Your task to perform on an android device: open app "Adobe Acrobat Reader: Edit PDF" Image 0: 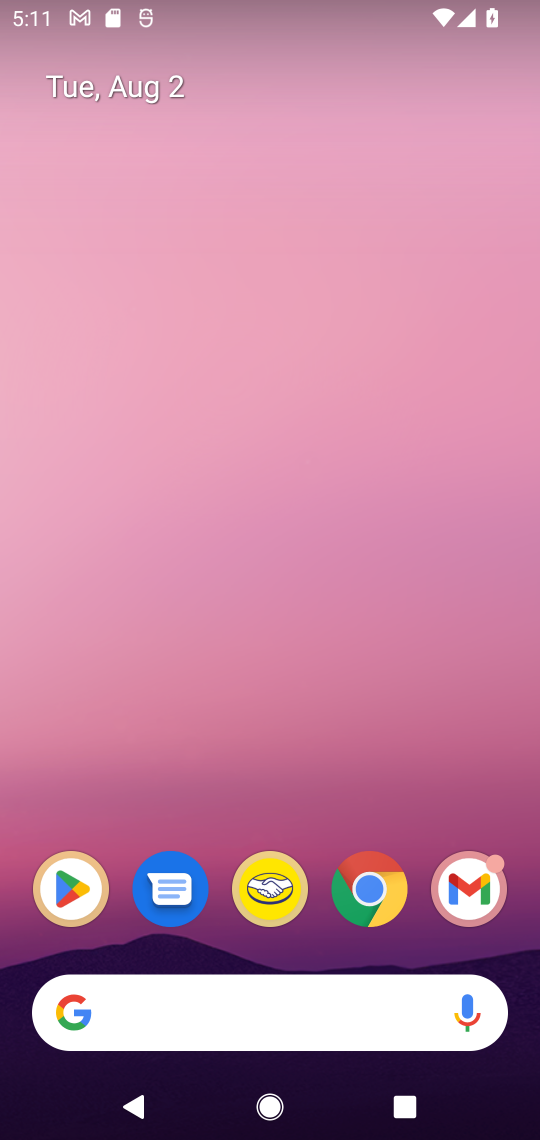
Step 0: drag from (380, 781) to (347, 132)
Your task to perform on an android device: open app "Adobe Acrobat Reader: Edit PDF" Image 1: 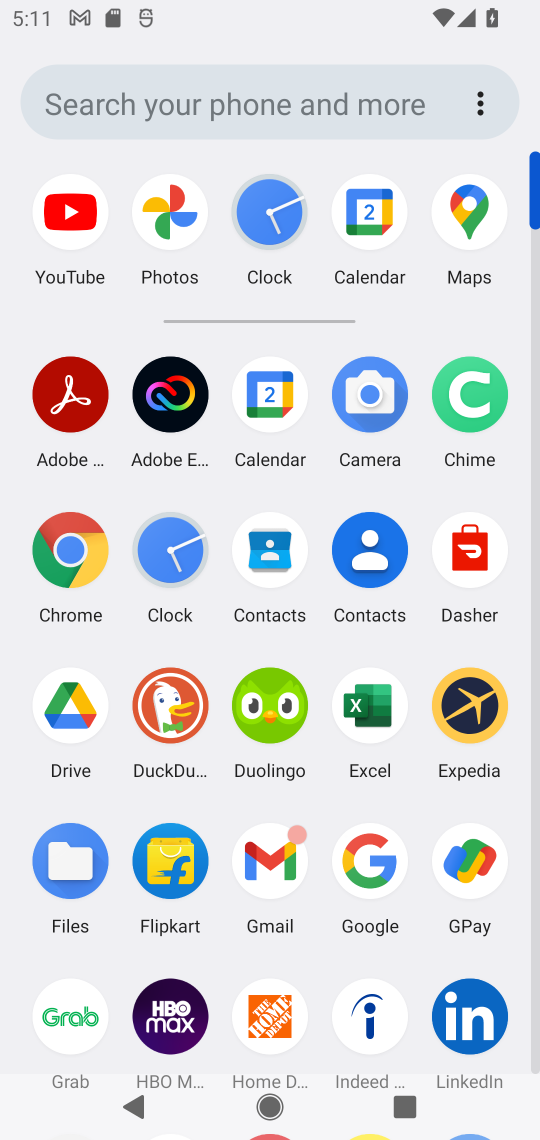
Step 1: drag from (499, 951) to (501, 604)
Your task to perform on an android device: open app "Adobe Acrobat Reader: Edit PDF" Image 2: 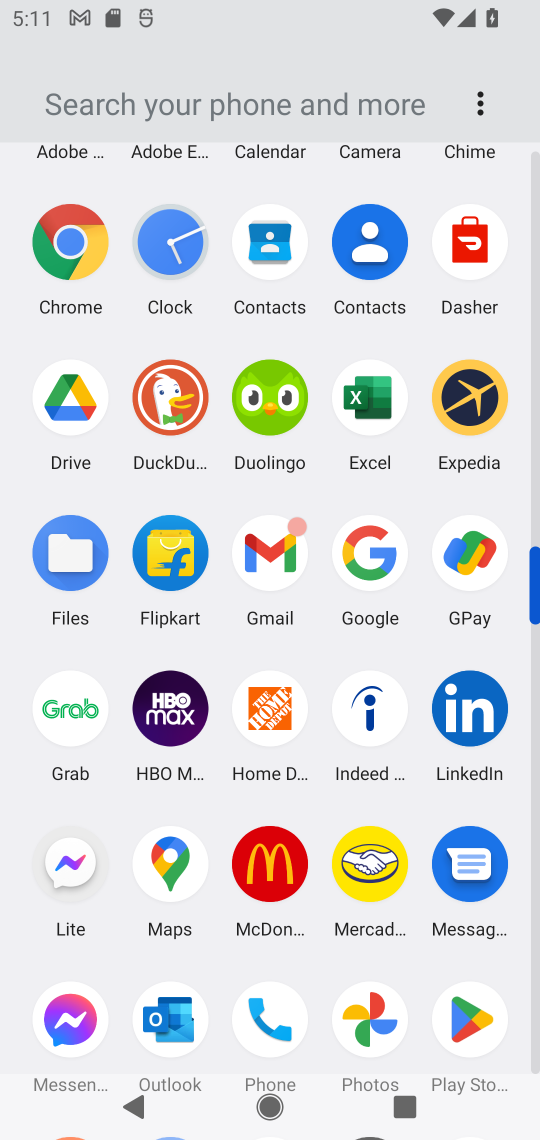
Step 2: drag from (497, 968) to (483, 671)
Your task to perform on an android device: open app "Adobe Acrobat Reader: Edit PDF" Image 3: 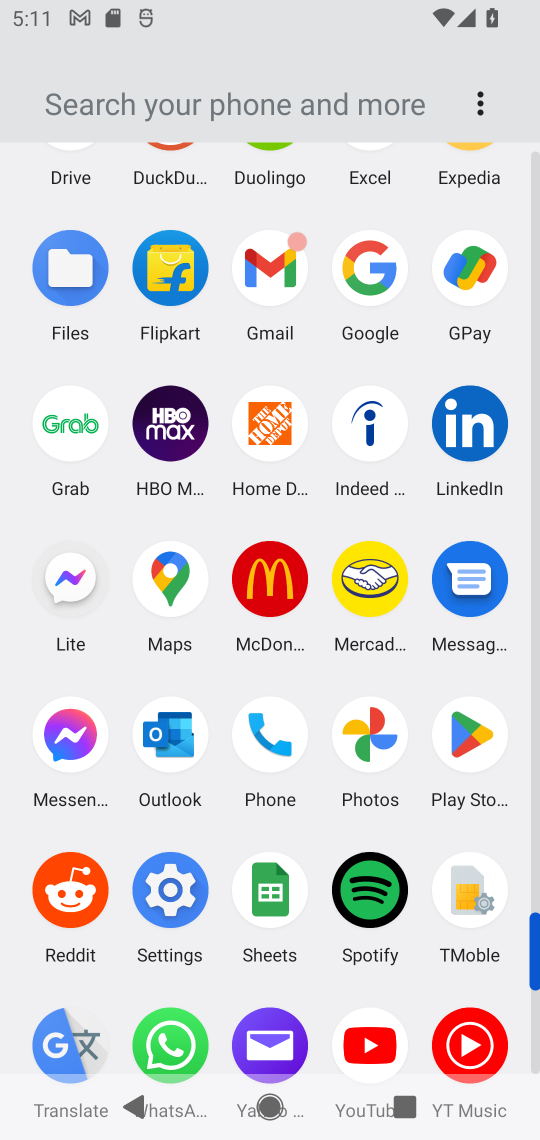
Step 3: click (476, 747)
Your task to perform on an android device: open app "Adobe Acrobat Reader: Edit PDF" Image 4: 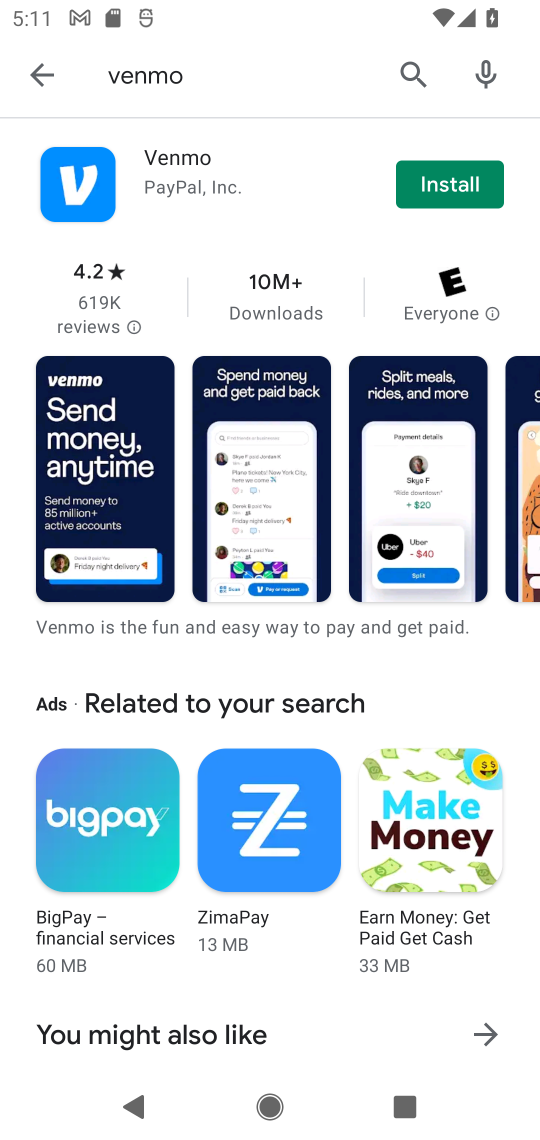
Step 4: click (409, 65)
Your task to perform on an android device: open app "Adobe Acrobat Reader: Edit PDF" Image 5: 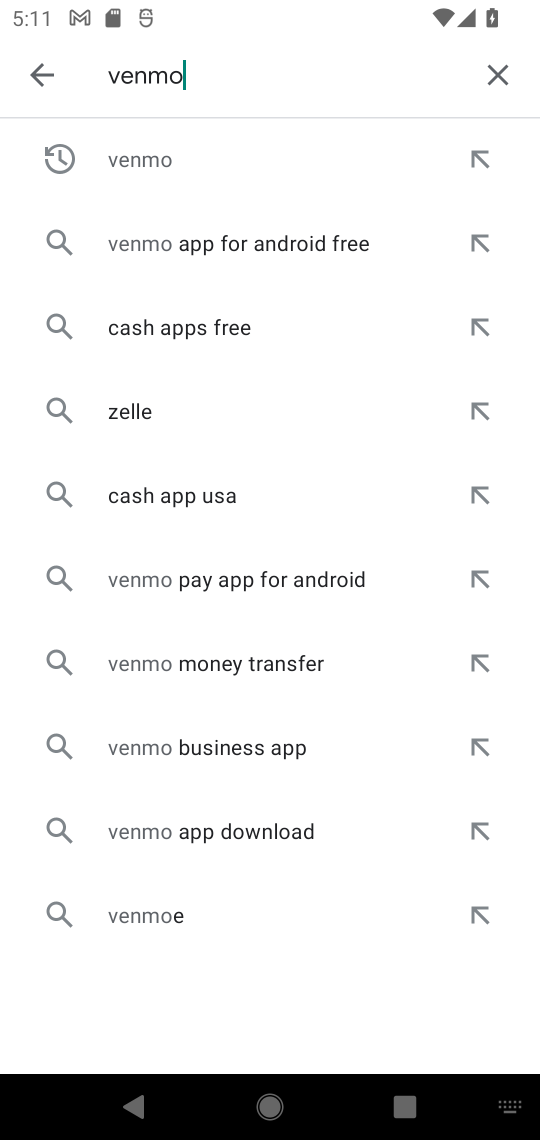
Step 5: click (504, 80)
Your task to perform on an android device: open app "Adobe Acrobat Reader: Edit PDF" Image 6: 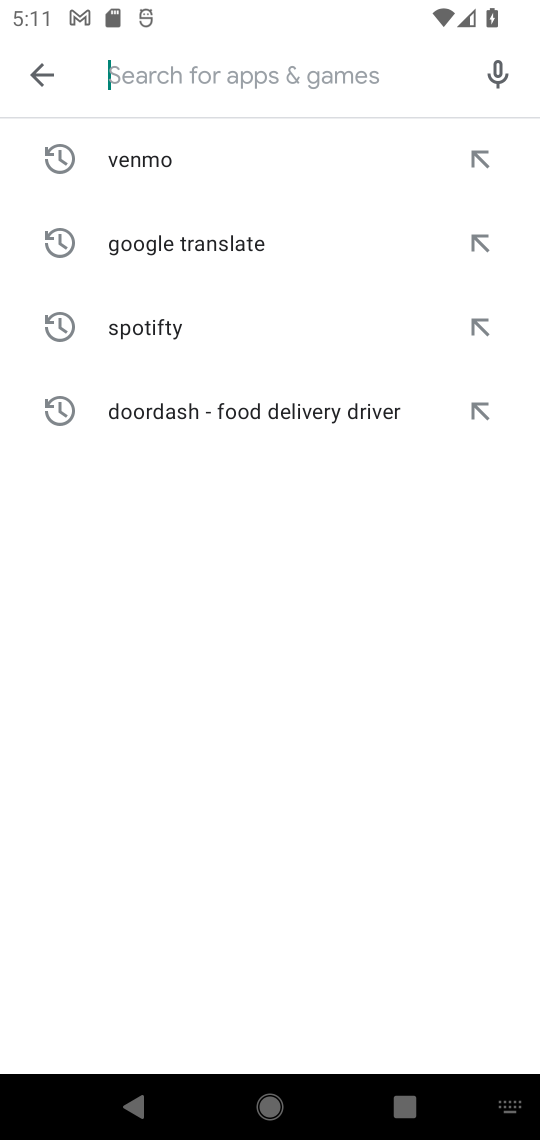
Step 6: click (309, 89)
Your task to perform on an android device: open app "Adobe Acrobat Reader: Edit PDF" Image 7: 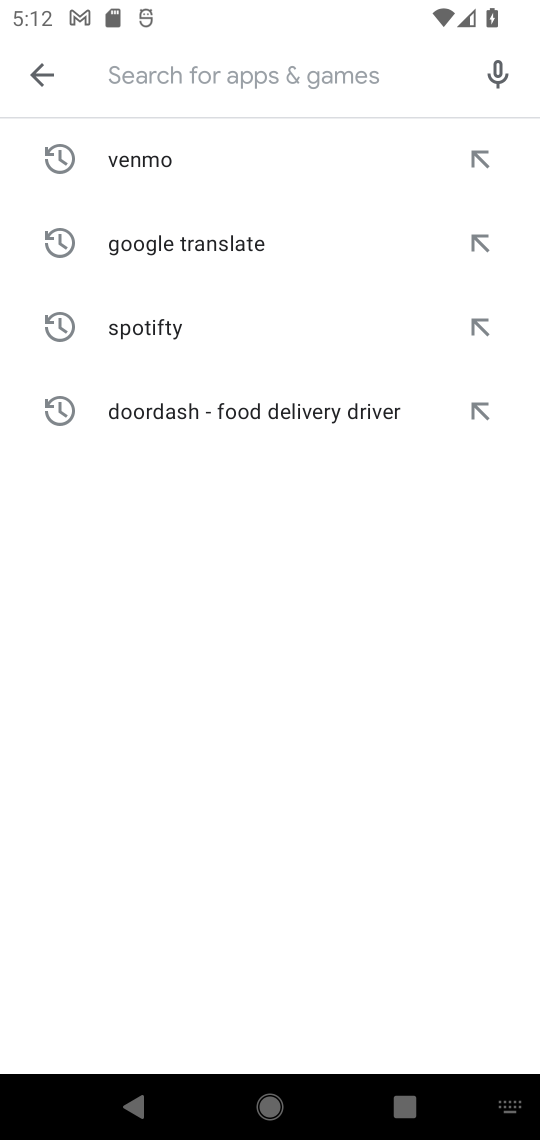
Step 7: type "Adobe Acrobat Reader: Edit PDF"
Your task to perform on an android device: open app "Adobe Acrobat Reader: Edit PDF" Image 8: 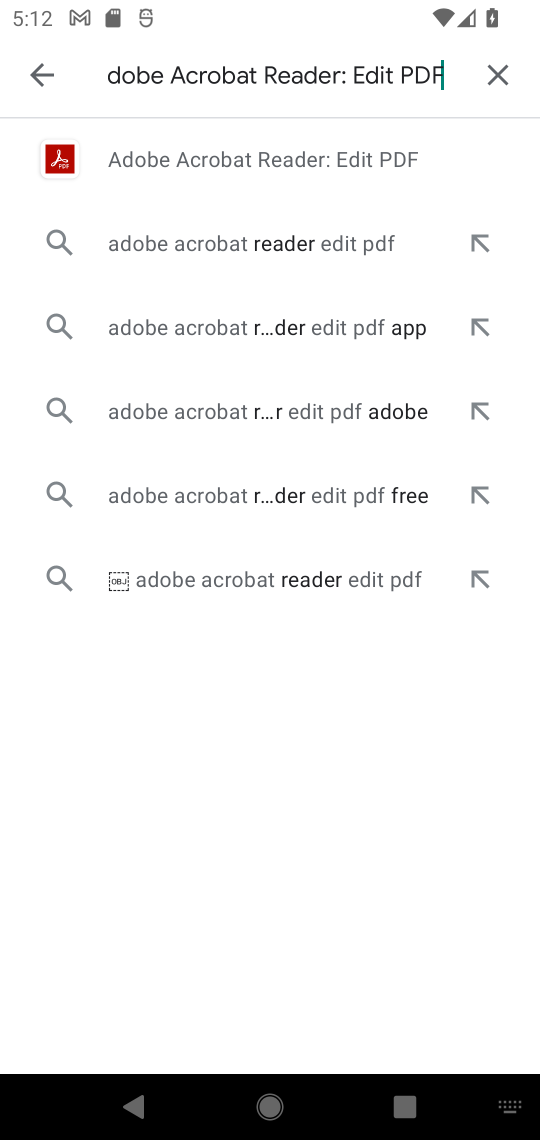
Step 8: click (232, 163)
Your task to perform on an android device: open app "Adobe Acrobat Reader: Edit PDF" Image 9: 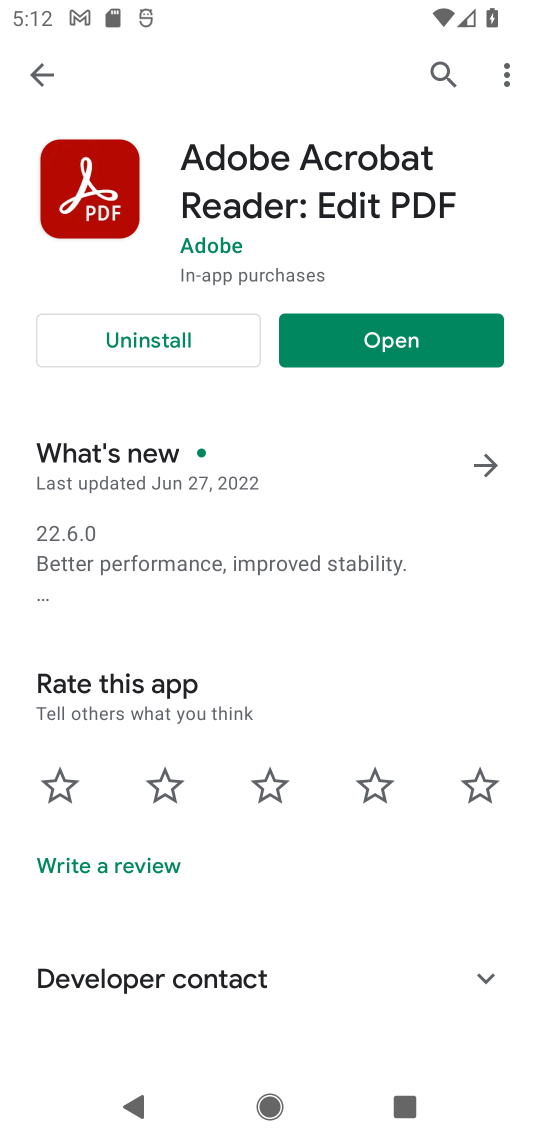
Step 9: click (419, 343)
Your task to perform on an android device: open app "Adobe Acrobat Reader: Edit PDF" Image 10: 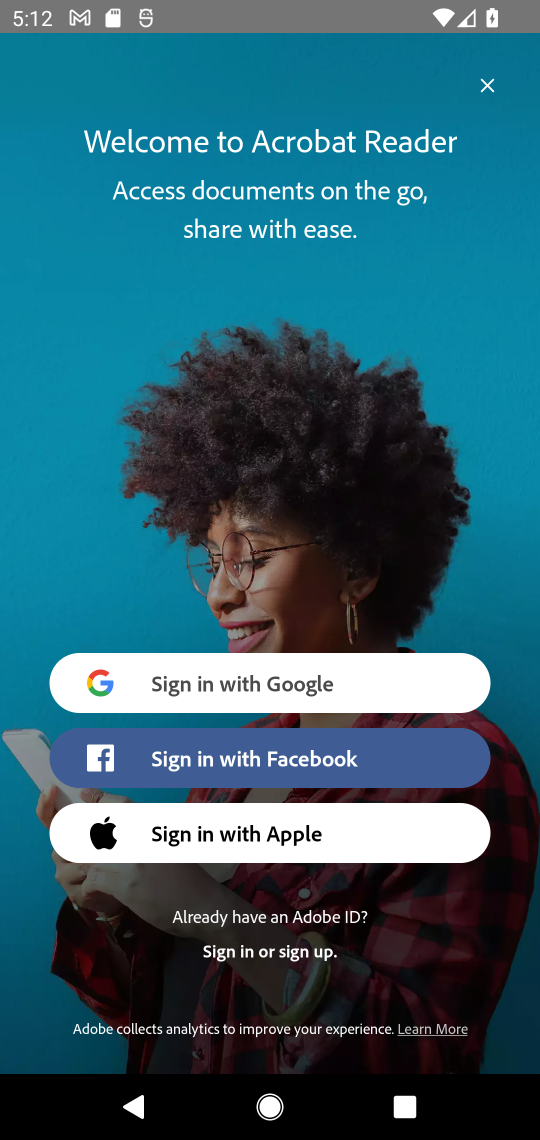
Step 10: task complete